Your task to perform on an android device: Go to Android settings Image 0: 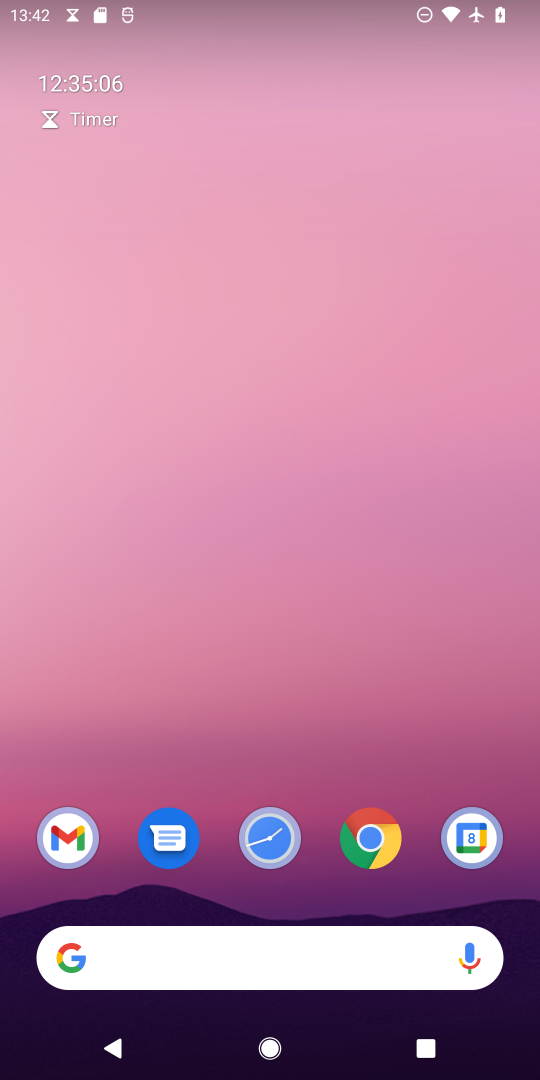
Step 0: press home button
Your task to perform on an android device: Go to Android settings Image 1: 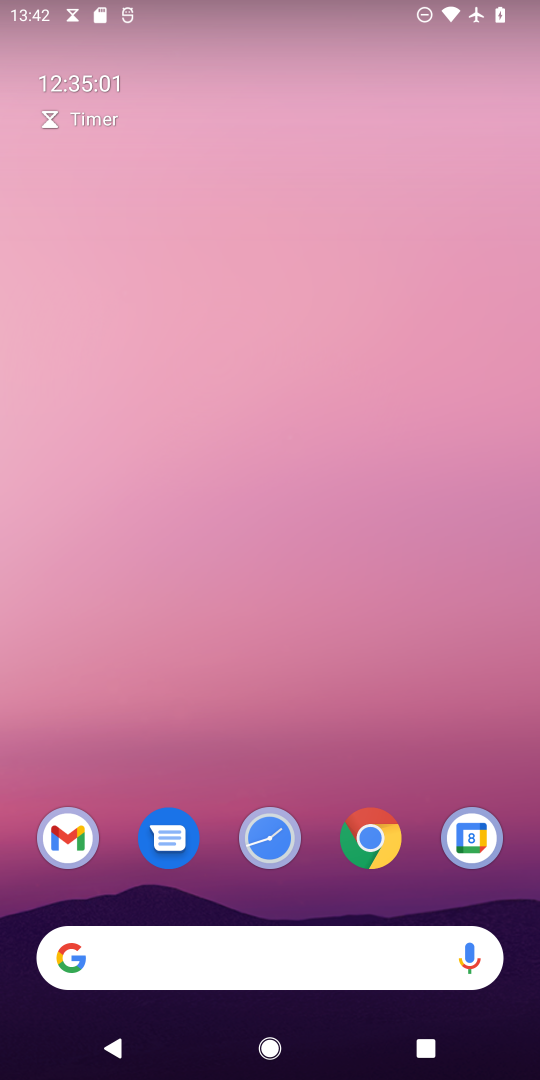
Step 1: drag from (298, 809) to (249, 256)
Your task to perform on an android device: Go to Android settings Image 2: 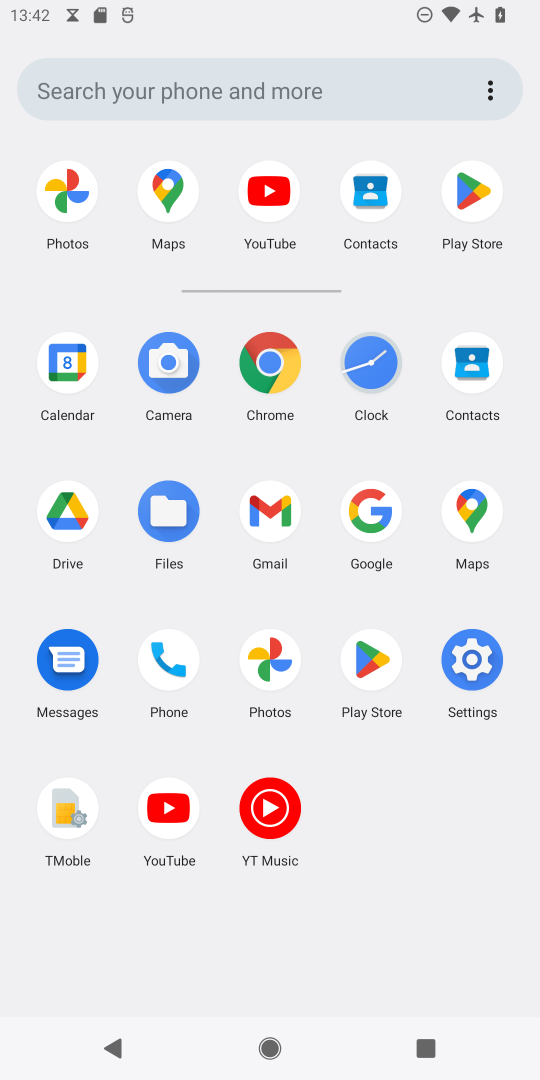
Step 2: click (462, 664)
Your task to perform on an android device: Go to Android settings Image 3: 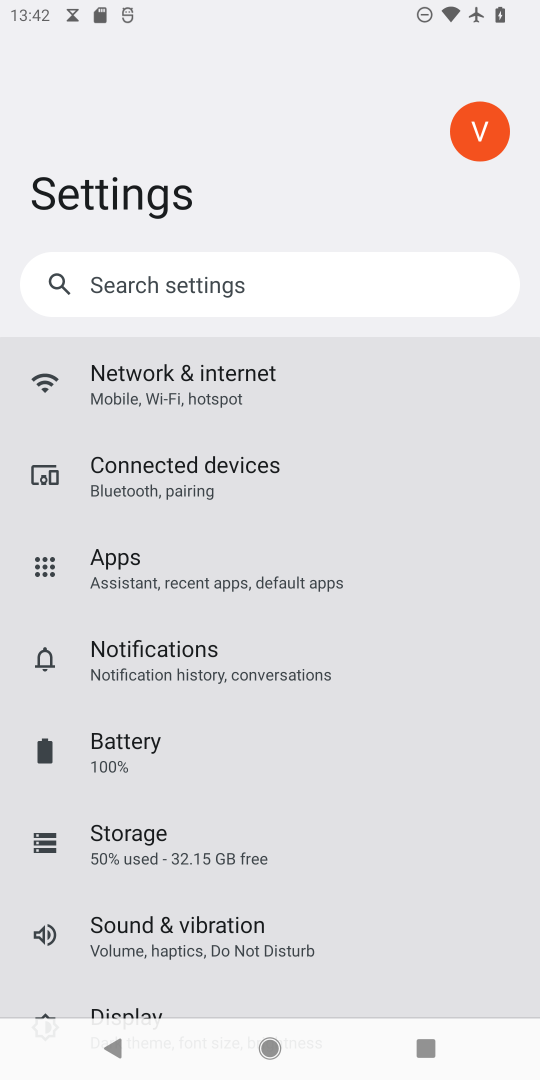
Step 3: task complete